Your task to perform on an android device: toggle javascript in the chrome app Image 0: 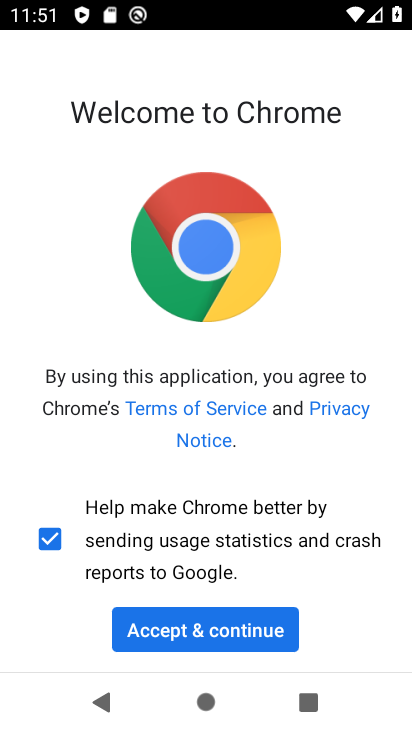
Step 0: press home button
Your task to perform on an android device: toggle javascript in the chrome app Image 1: 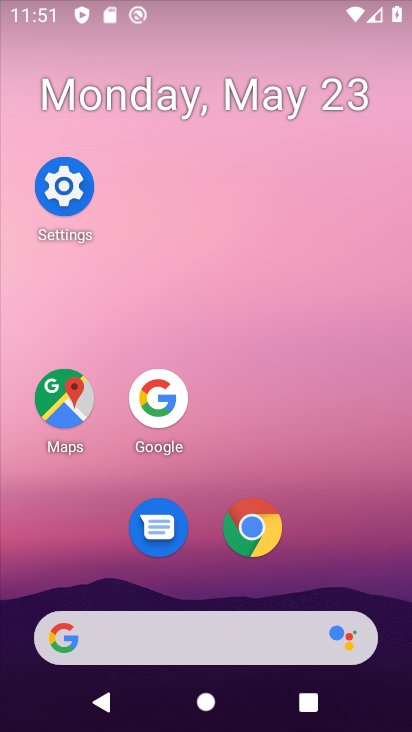
Step 1: click (244, 531)
Your task to perform on an android device: toggle javascript in the chrome app Image 2: 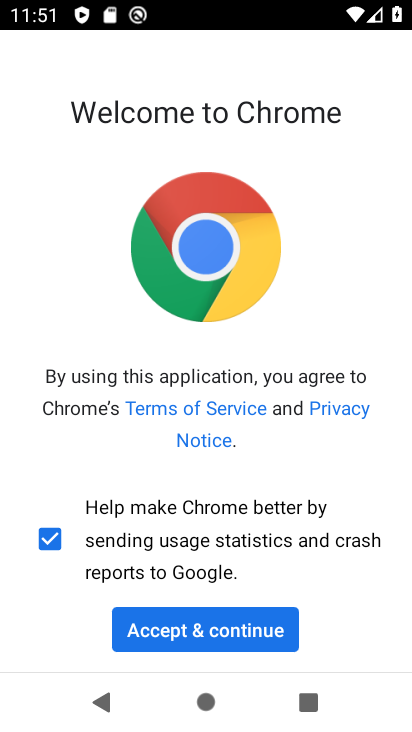
Step 2: click (249, 620)
Your task to perform on an android device: toggle javascript in the chrome app Image 3: 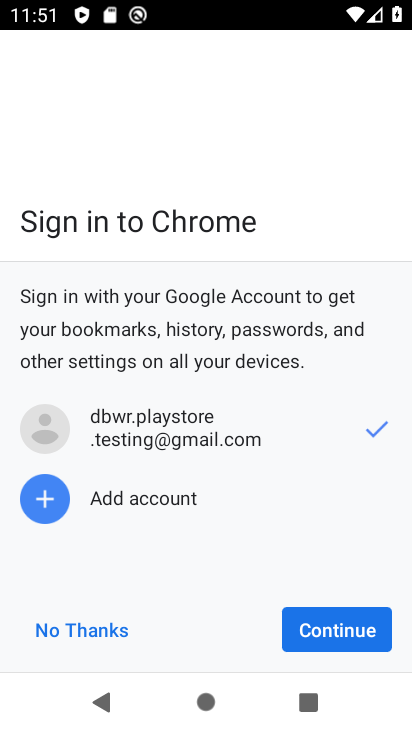
Step 3: click (330, 638)
Your task to perform on an android device: toggle javascript in the chrome app Image 4: 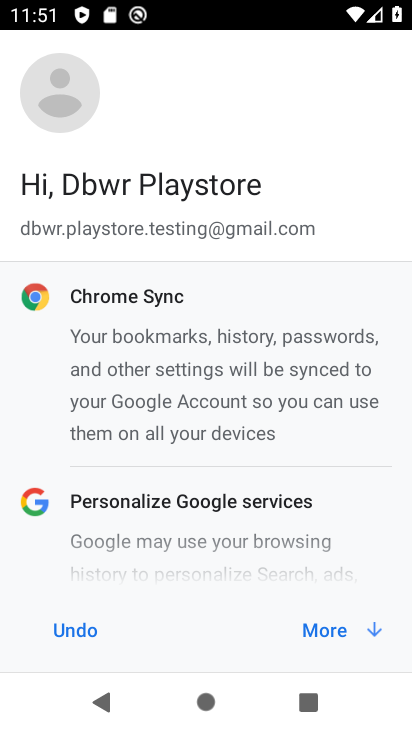
Step 4: click (369, 628)
Your task to perform on an android device: toggle javascript in the chrome app Image 5: 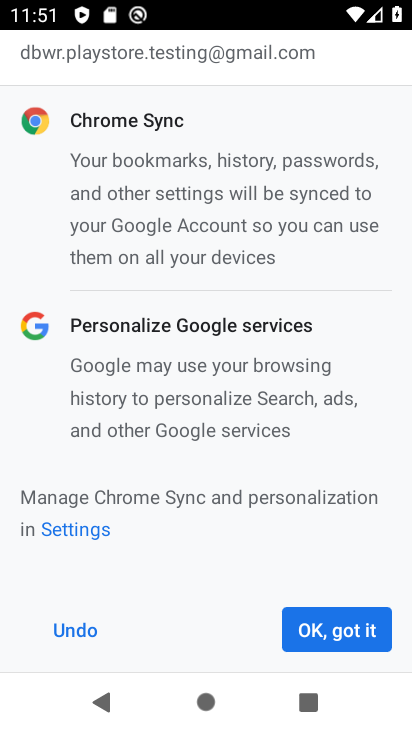
Step 5: click (366, 628)
Your task to perform on an android device: toggle javascript in the chrome app Image 6: 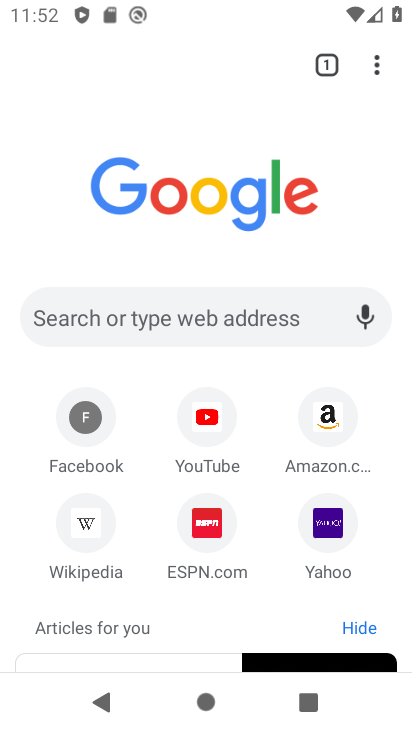
Step 6: click (375, 82)
Your task to perform on an android device: toggle javascript in the chrome app Image 7: 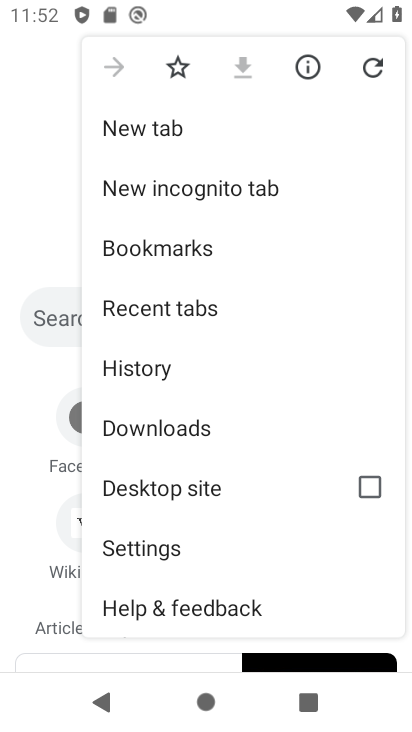
Step 7: drag from (262, 578) to (283, 301)
Your task to perform on an android device: toggle javascript in the chrome app Image 8: 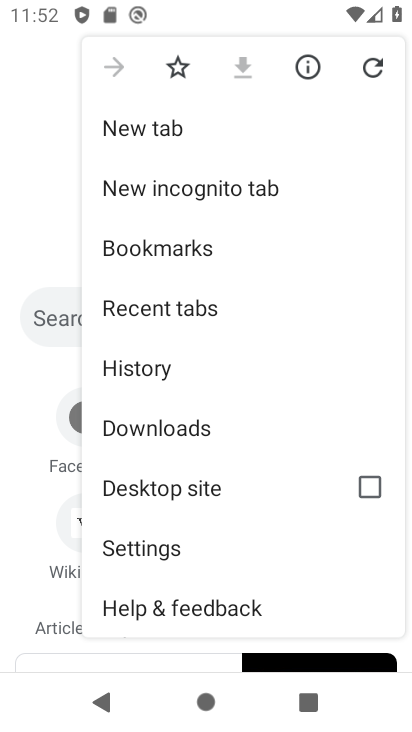
Step 8: click (232, 541)
Your task to perform on an android device: toggle javascript in the chrome app Image 9: 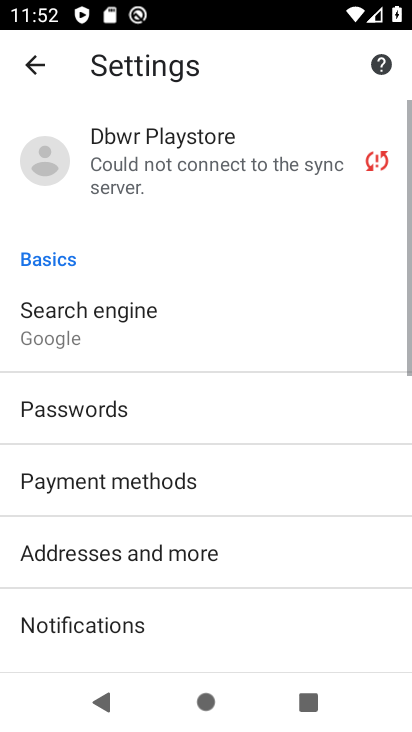
Step 9: drag from (240, 527) to (301, 214)
Your task to perform on an android device: toggle javascript in the chrome app Image 10: 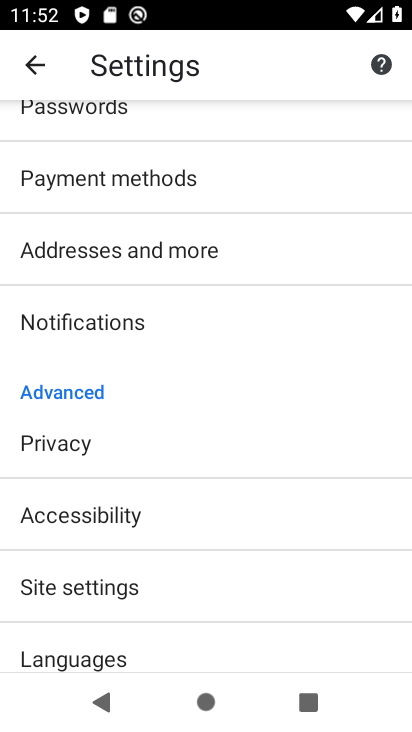
Step 10: click (187, 596)
Your task to perform on an android device: toggle javascript in the chrome app Image 11: 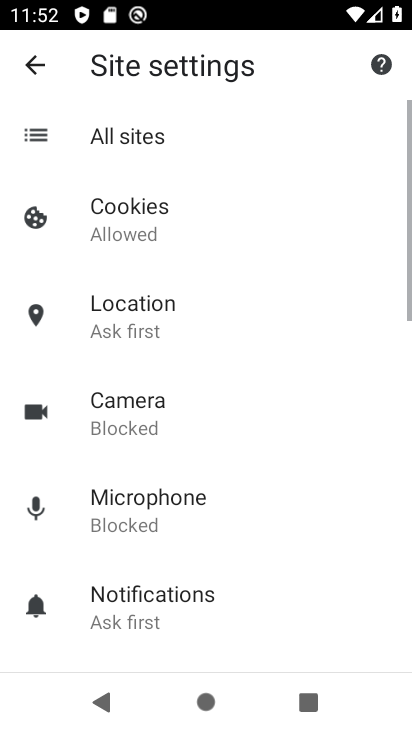
Step 11: drag from (176, 594) to (226, 232)
Your task to perform on an android device: toggle javascript in the chrome app Image 12: 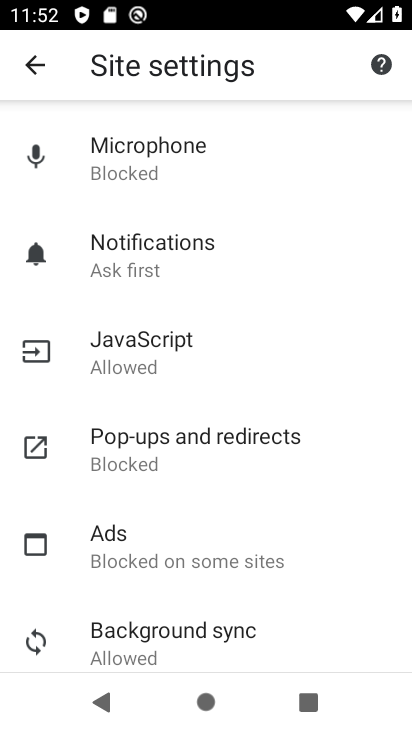
Step 12: click (206, 341)
Your task to perform on an android device: toggle javascript in the chrome app Image 13: 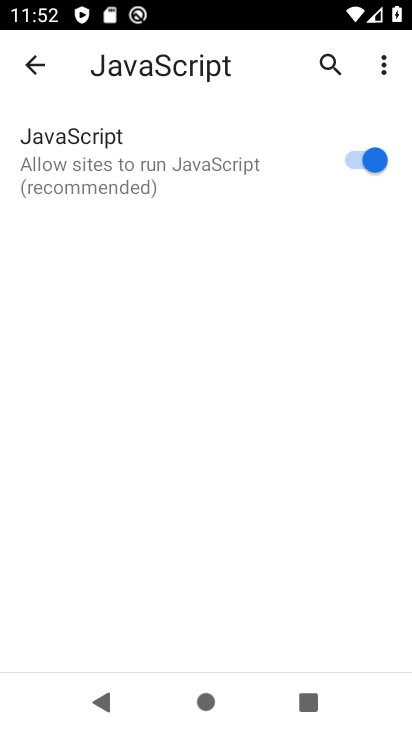
Step 13: click (373, 169)
Your task to perform on an android device: toggle javascript in the chrome app Image 14: 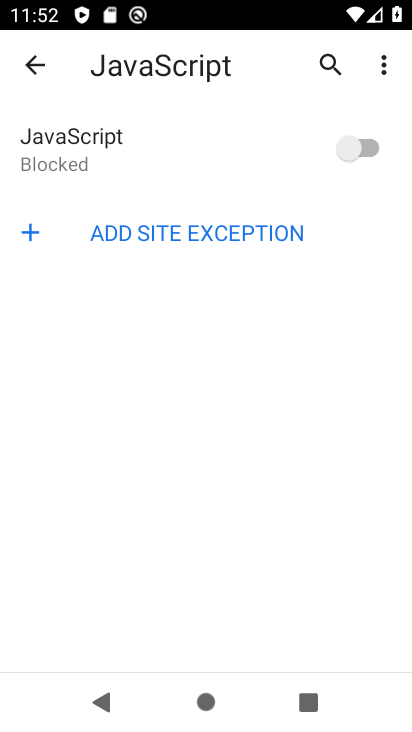
Step 14: task complete